Your task to perform on an android device: When is my next meeting? Image 0: 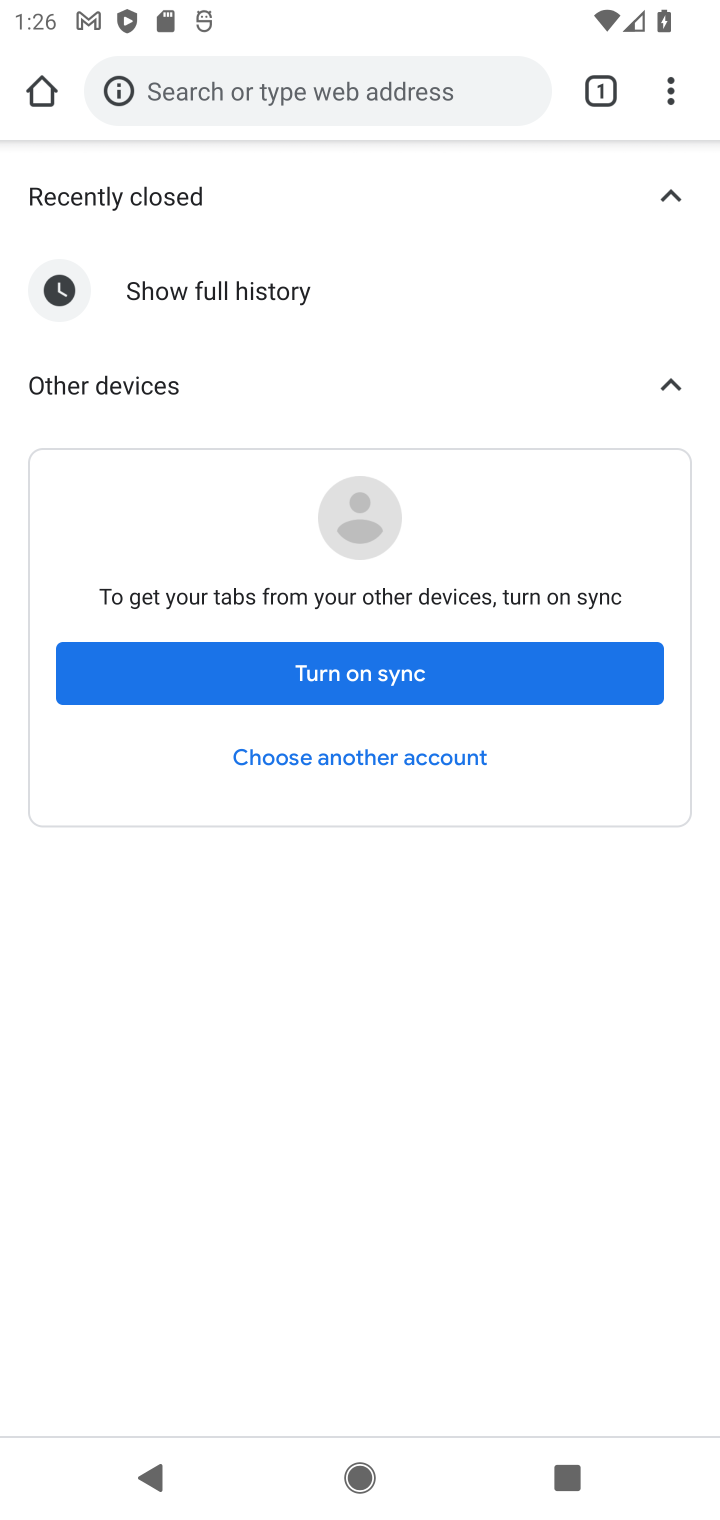
Step 0: press home button
Your task to perform on an android device: When is my next meeting? Image 1: 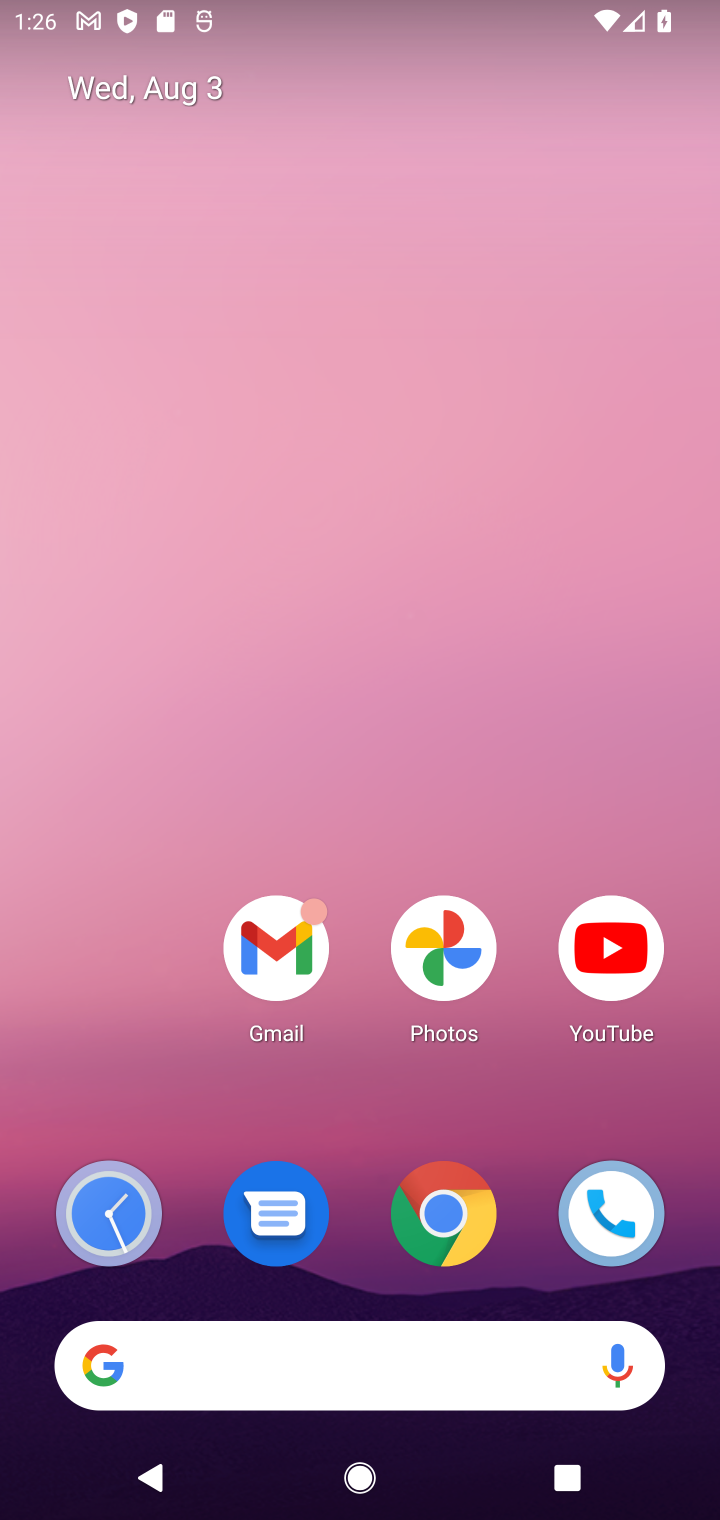
Step 1: drag from (451, 804) to (526, 9)
Your task to perform on an android device: When is my next meeting? Image 2: 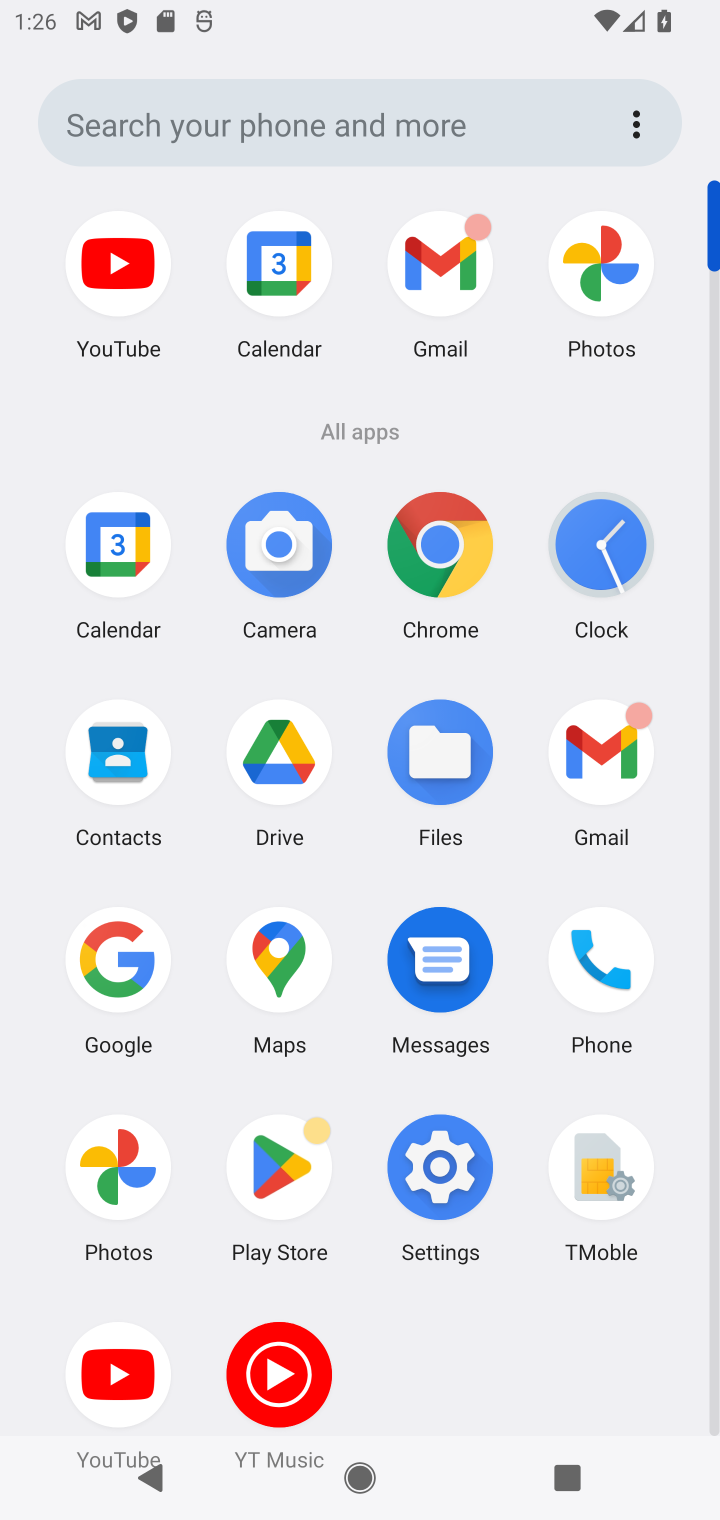
Step 2: click (106, 543)
Your task to perform on an android device: When is my next meeting? Image 3: 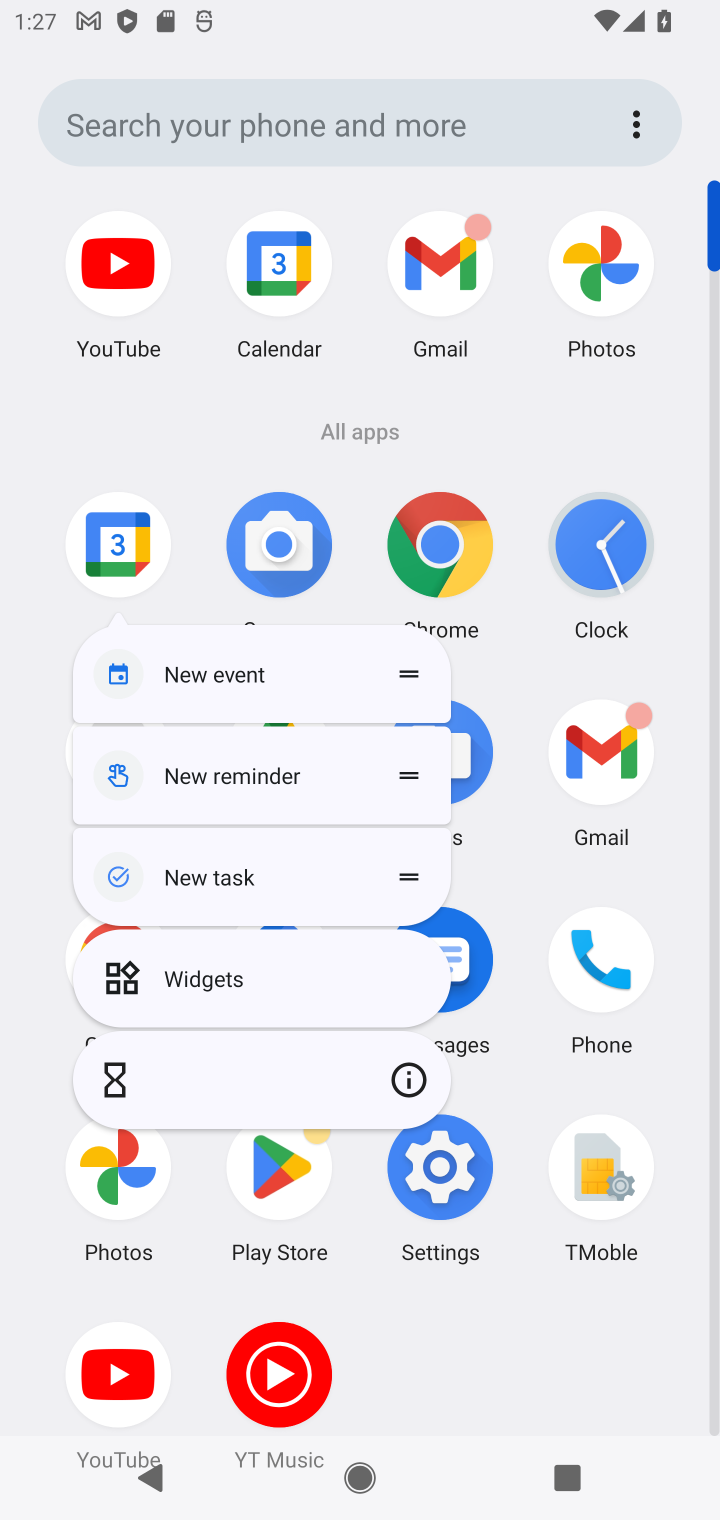
Step 3: click (285, 264)
Your task to perform on an android device: When is my next meeting? Image 4: 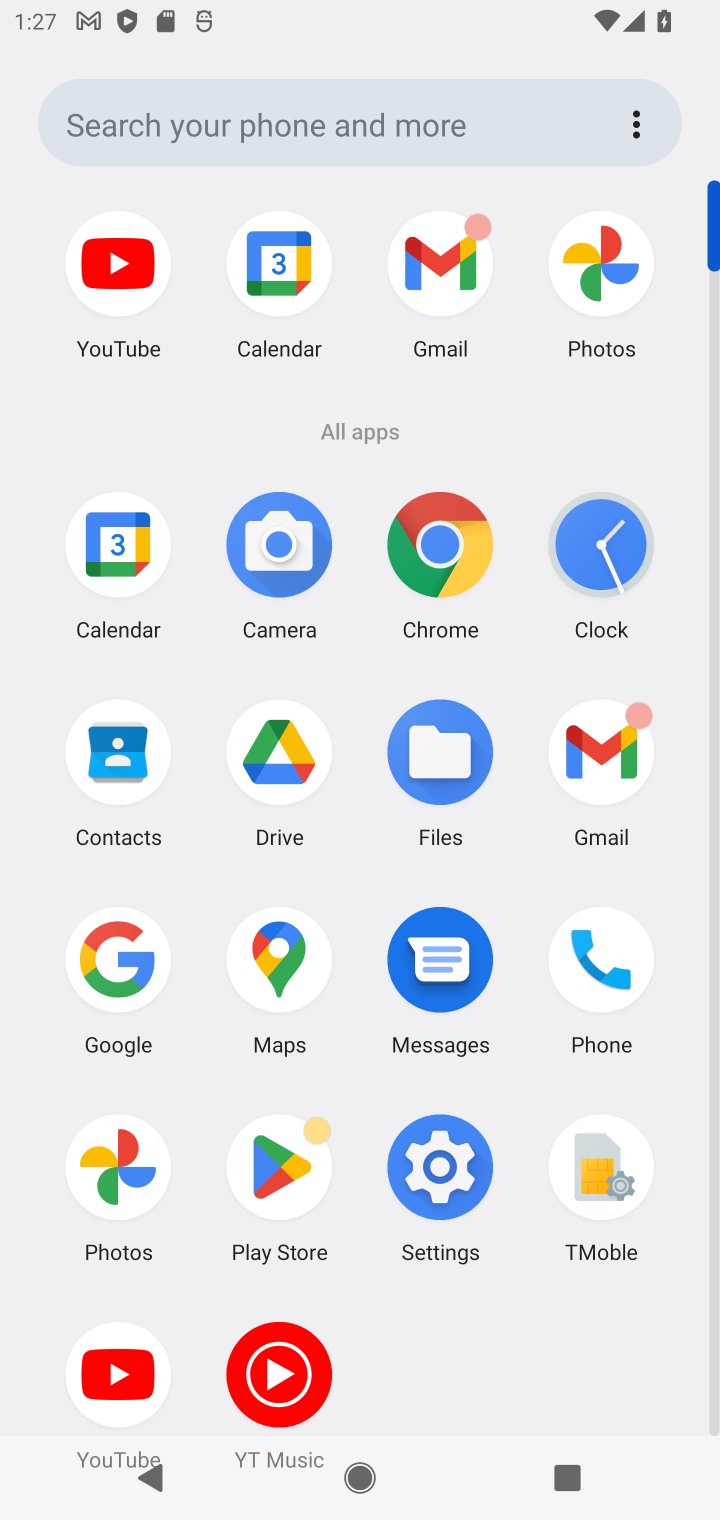
Step 4: click (275, 249)
Your task to perform on an android device: When is my next meeting? Image 5: 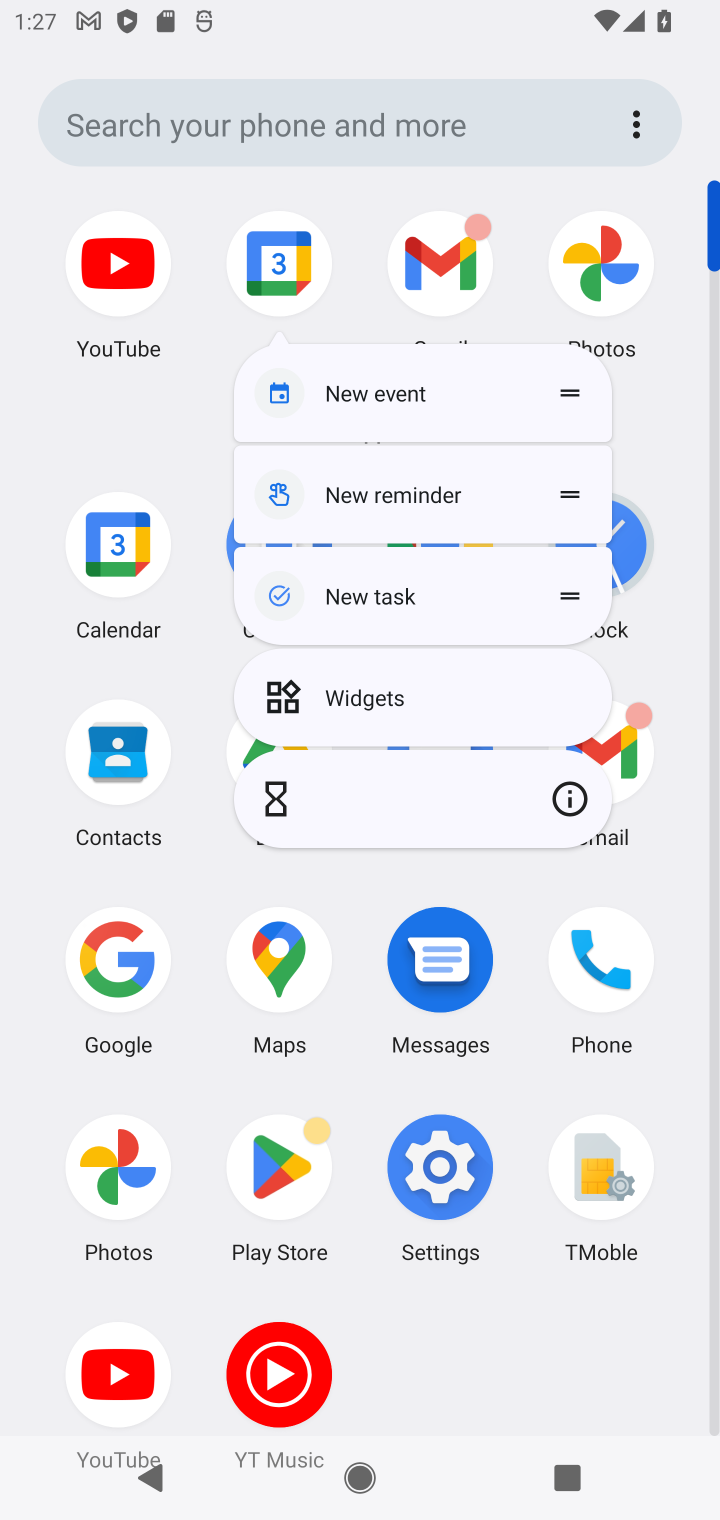
Step 5: click (299, 280)
Your task to perform on an android device: When is my next meeting? Image 6: 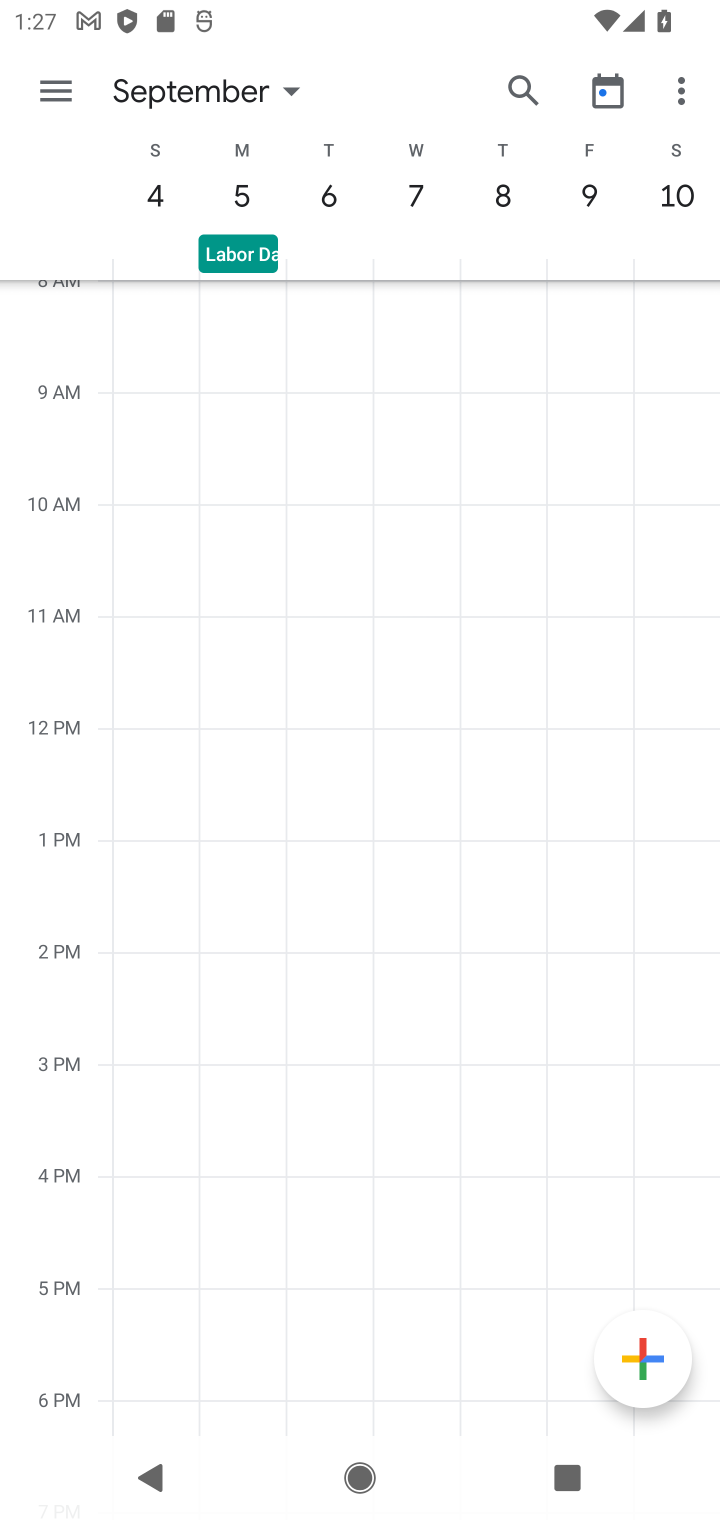
Step 6: click (295, 88)
Your task to perform on an android device: When is my next meeting? Image 7: 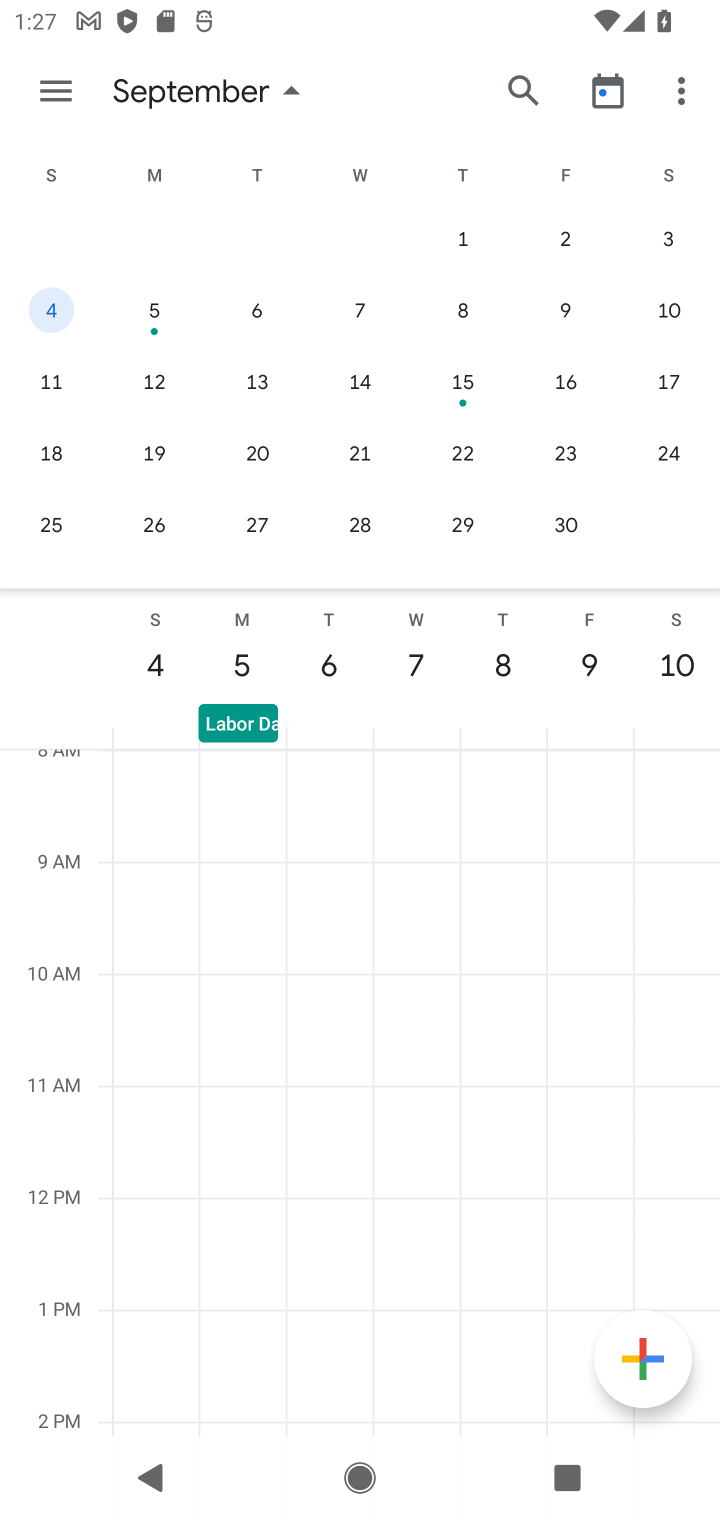
Step 7: click (152, 314)
Your task to perform on an android device: When is my next meeting? Image 8: 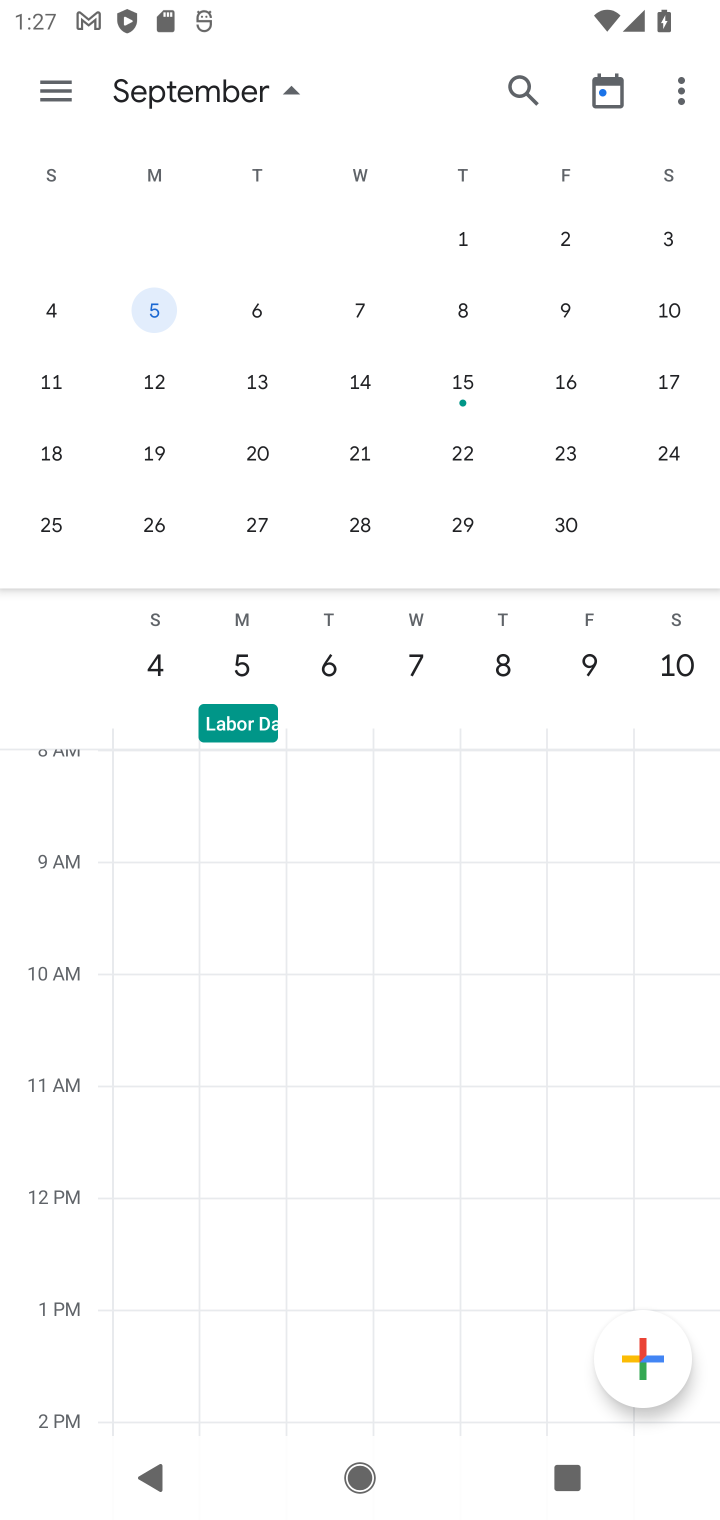
Step 8: task complete